Your task to perform on an android device: turn smart compose on in the gmail app Image 0: 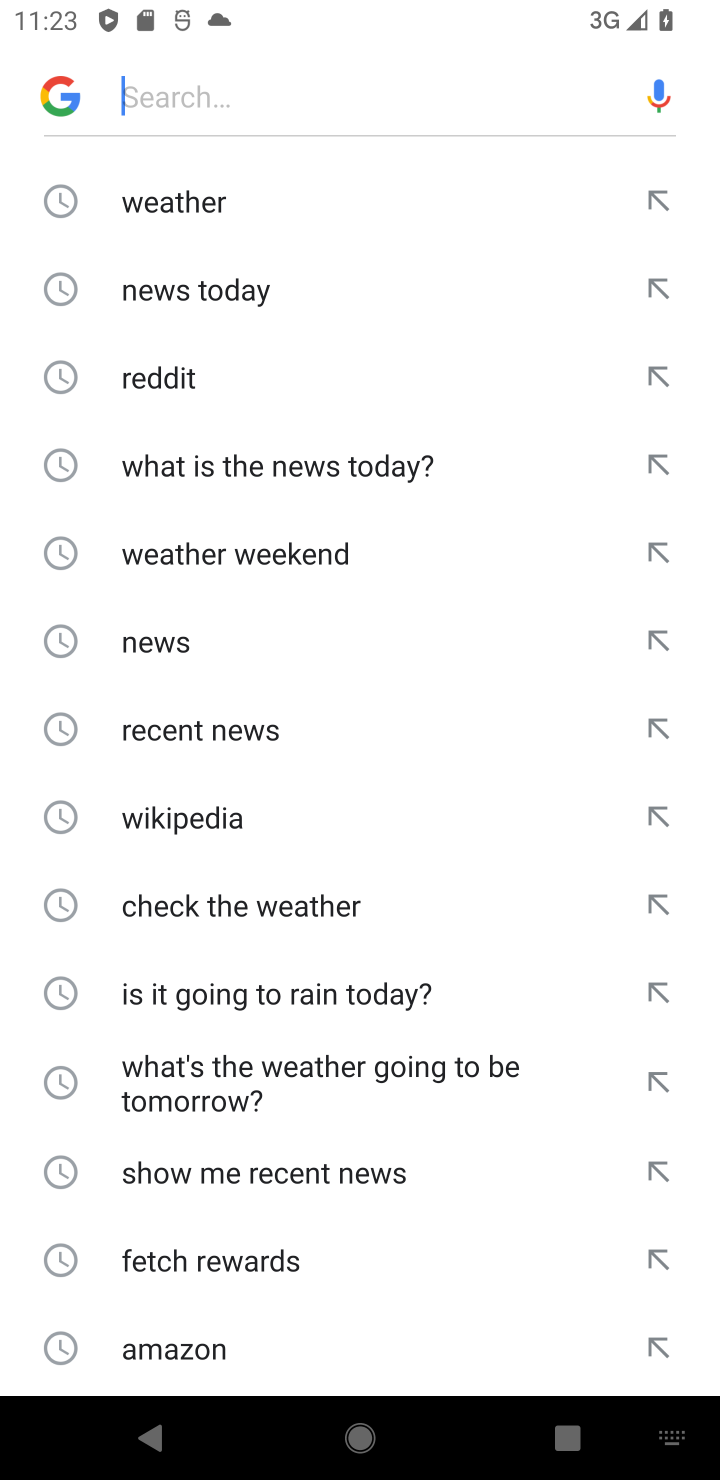
Step 0: press home button
Your task to perform on an android device: turn smart compose on in the gmail app Image 1: 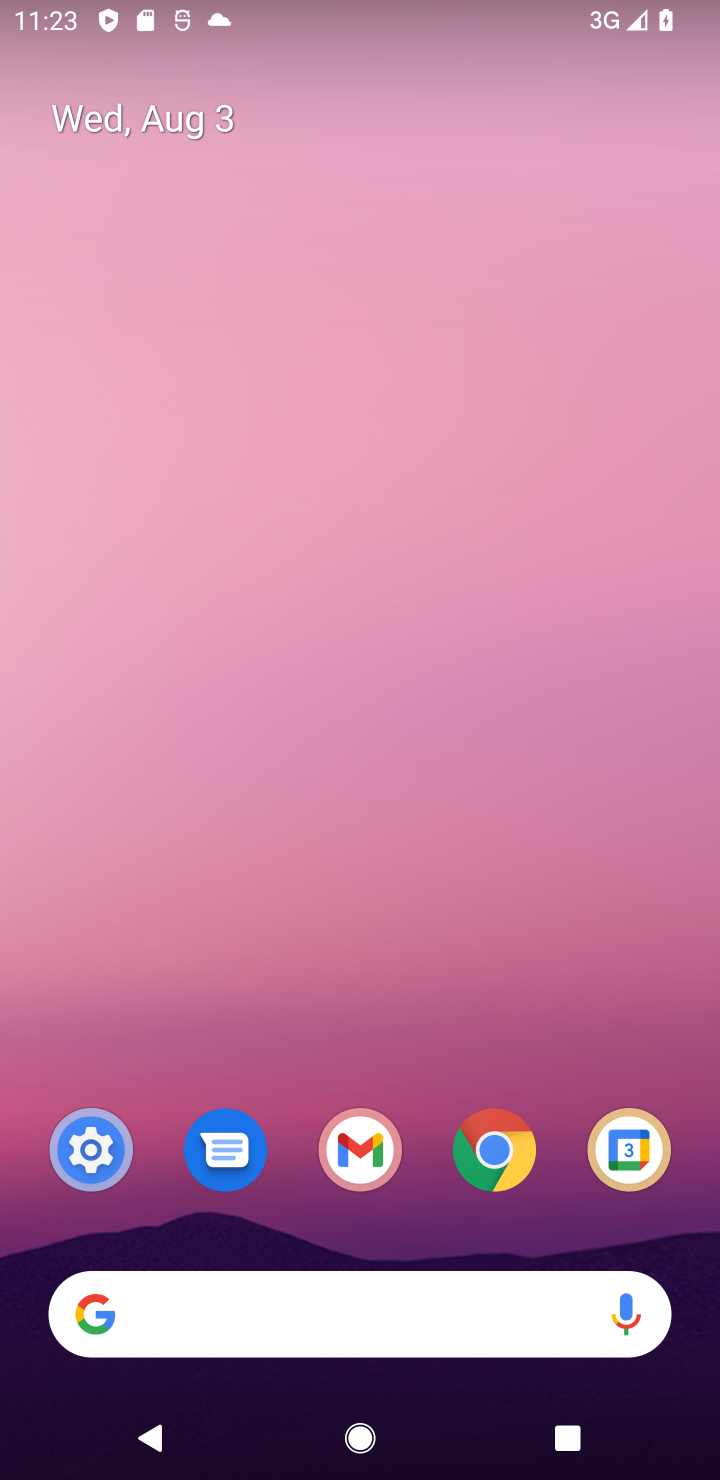
Step 1: drag from (566, 1027) to (563, 139)
Your task to perform on an android device: turn smart compose on in the gmail app Image 2: 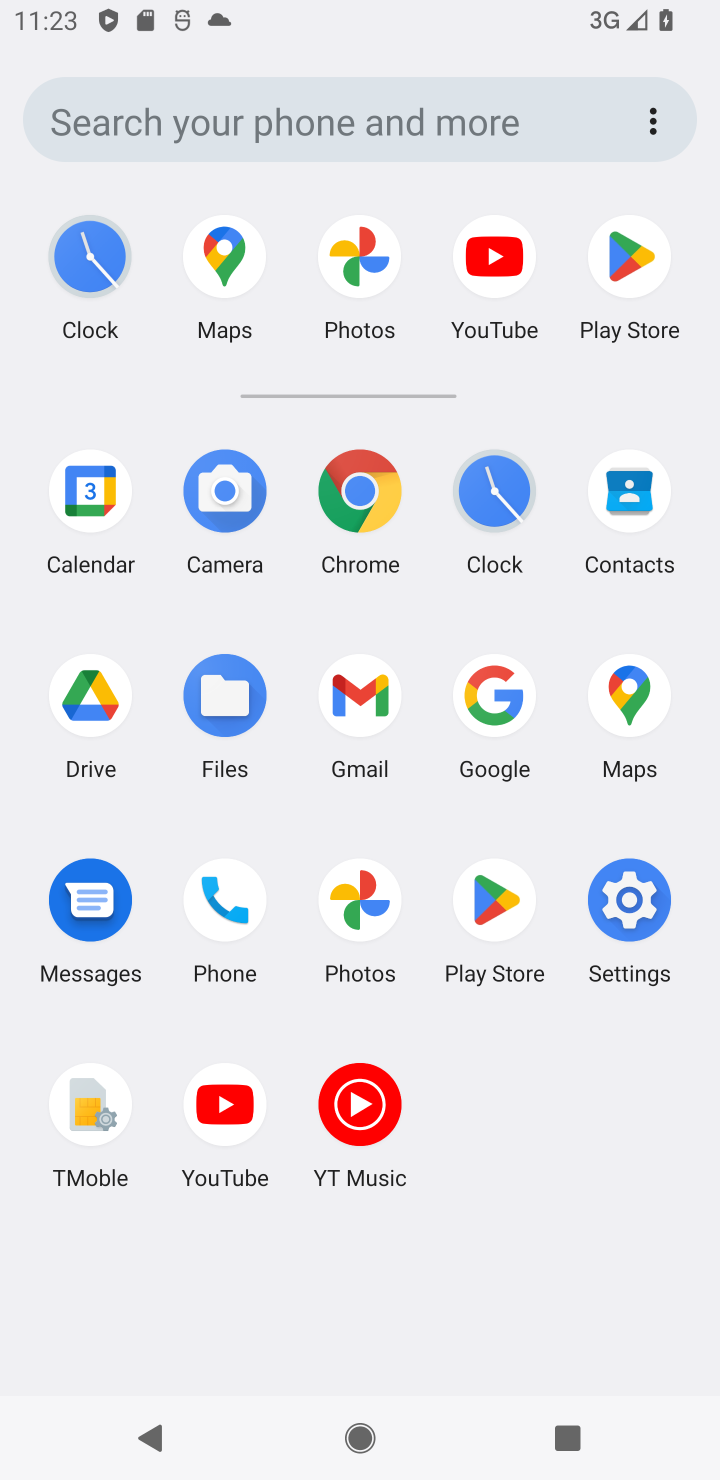
Step 2: click (358, 690)
Your task to perform on an android device: turn smart compose on in the gmail app Image 3: 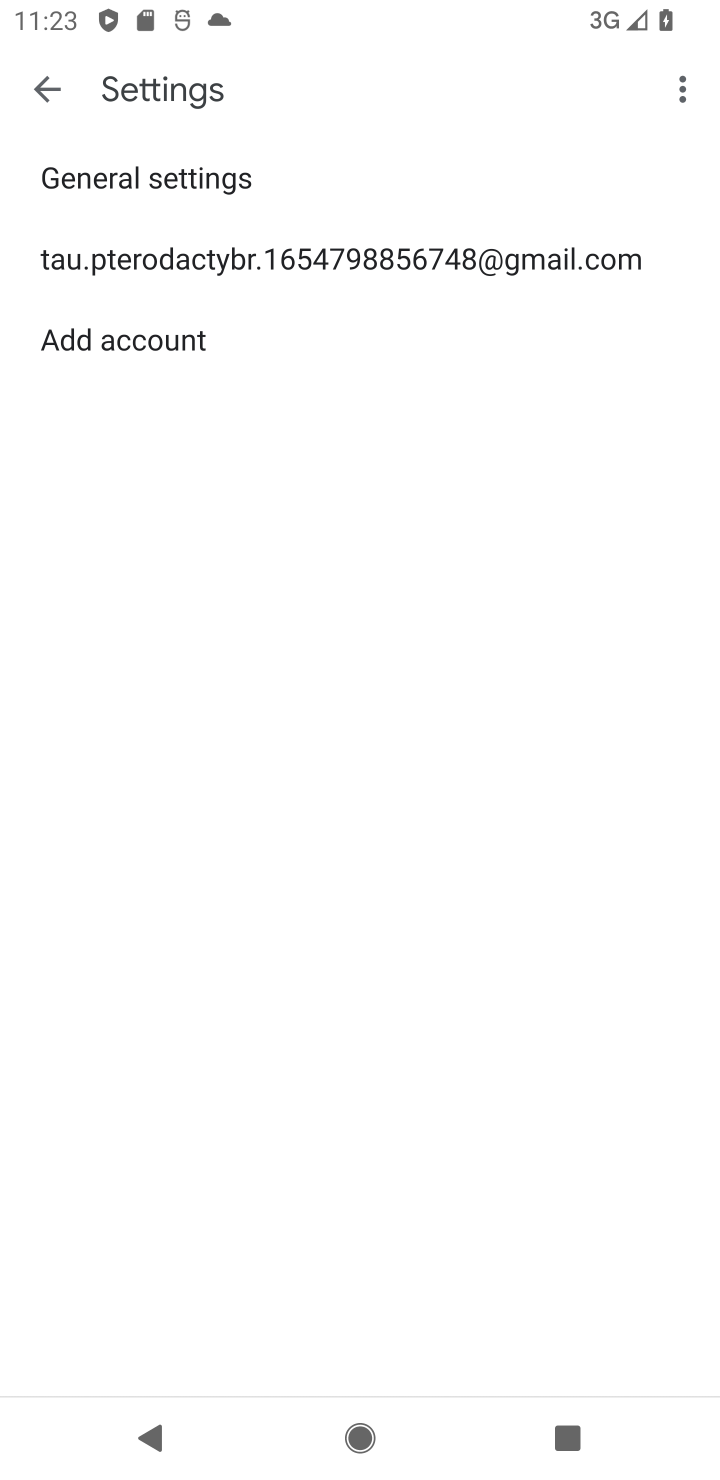
Step 3: click (366, 250)
Your task to perform on an android device: turn smart compose on in the gmail app Image 4: 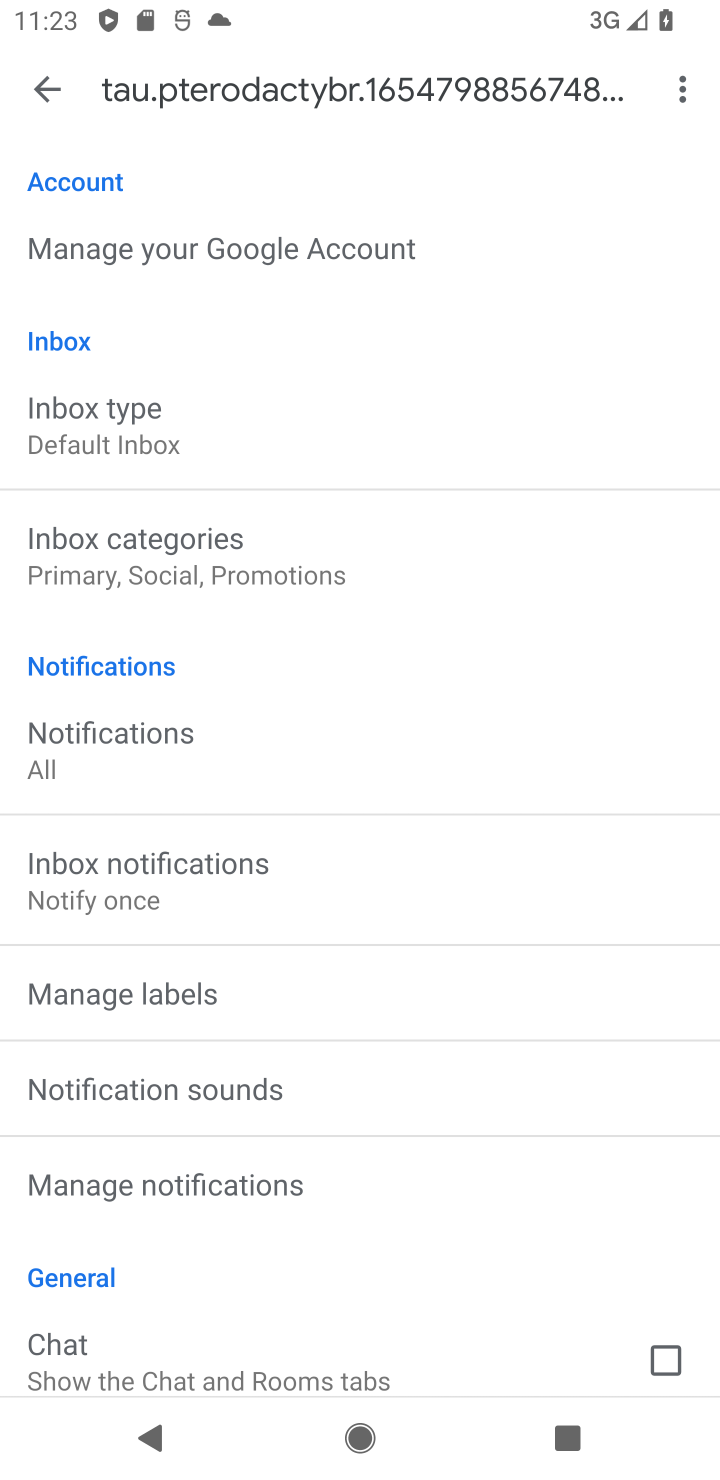
Step 4: task complete